Your task to perform on an android device: turn off data saver in the chrome app Image 0: 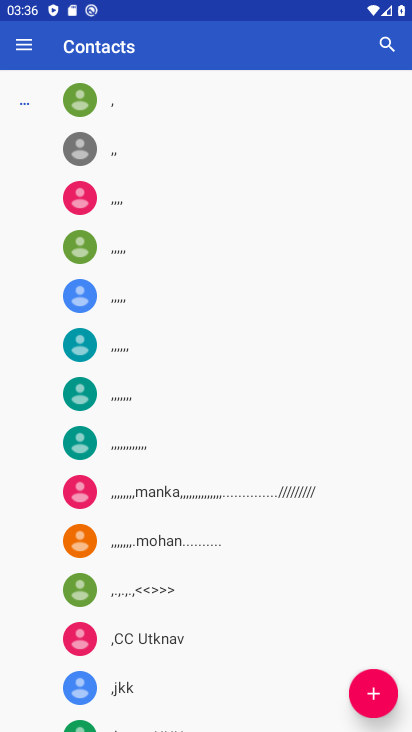
Step 0: press home button
Your task to perform on an android device: turn off data saver in the chrome app Image 1: 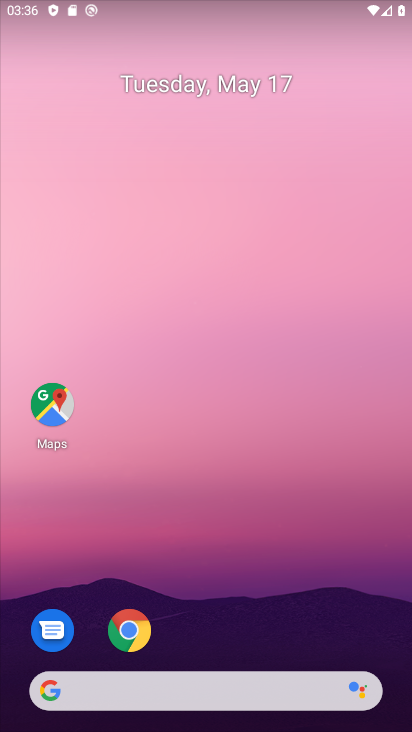
Step 1: click (139, 640)
Your task to perform on an android device: turn off data saver in the chrome app Image 2: 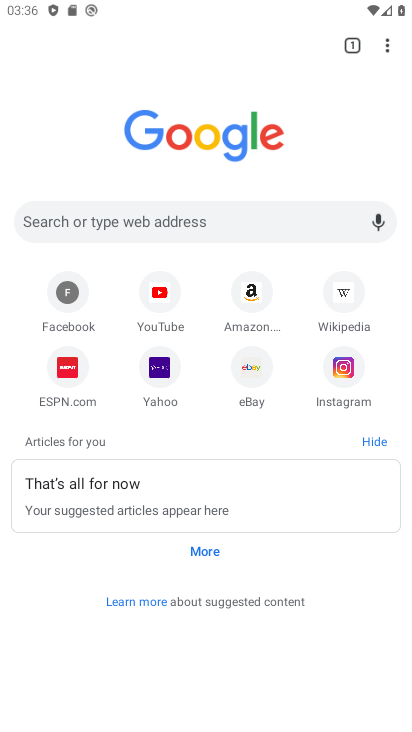
Step 2: drag from (395, 46) to (309, 383)
Your task to perform on an android device: turn off data saver in the chrome app Image 3: 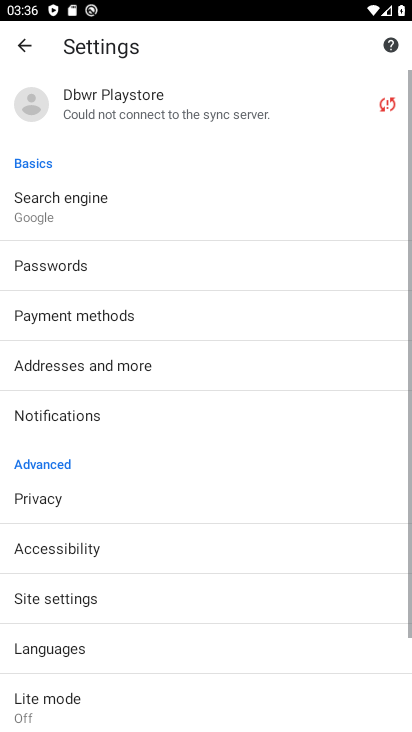
Step 3: drag from (133, 672) to (226, 271)
Your task to perform on an android device: turn off data saver in the chrome app Image 4: 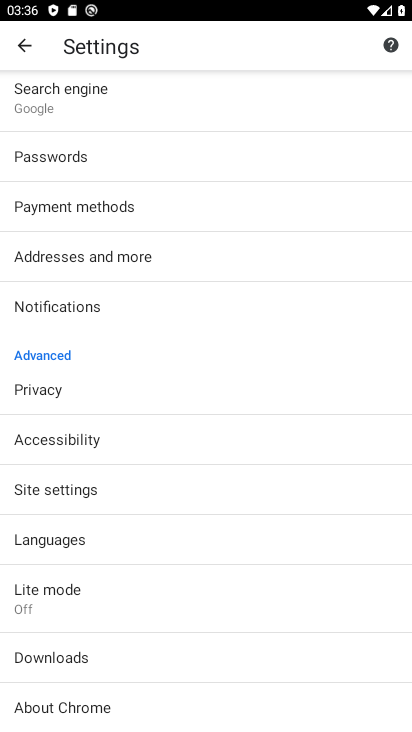
Step 4: click (147, 597)
Your task to perform on an android device: turn off data saver in the chrome app Image 5: 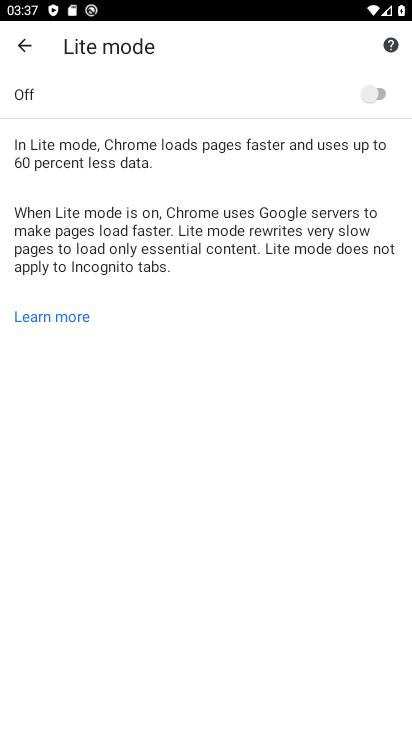
Step 5: task complete